Your task to perform on an android device: empty trash in google photos Image 0: 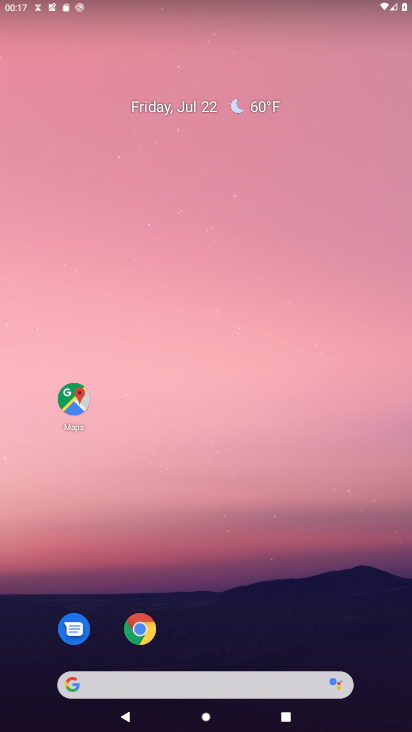
Step 0: drag from (220, 358) to (220, 201)
Your task to perform on an android device: empty trash in google photos Image 1: 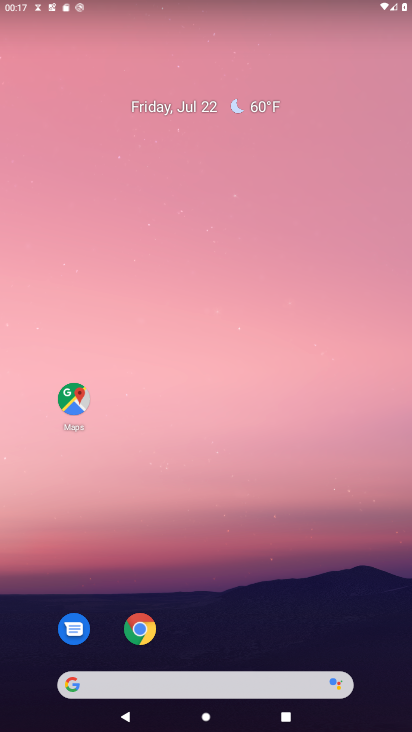
Step 1: drag from (281, 633) to (221, 167)
Your task to perform on an android device: empty trash in google photos Image 2: 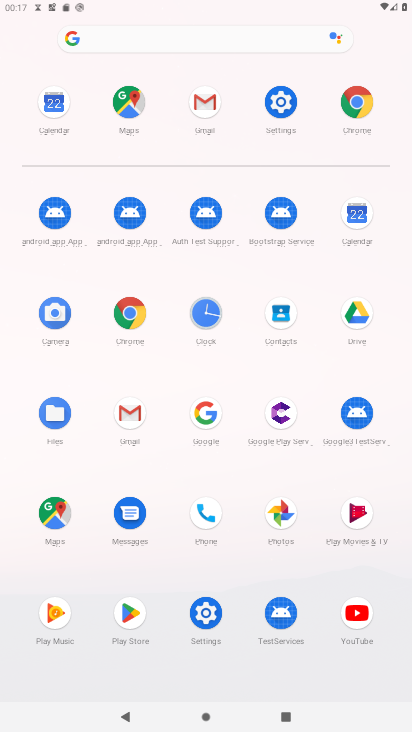
Step 2: click (286, 506)
Your task to perform on an android device: empty trash in google photos Image 3: 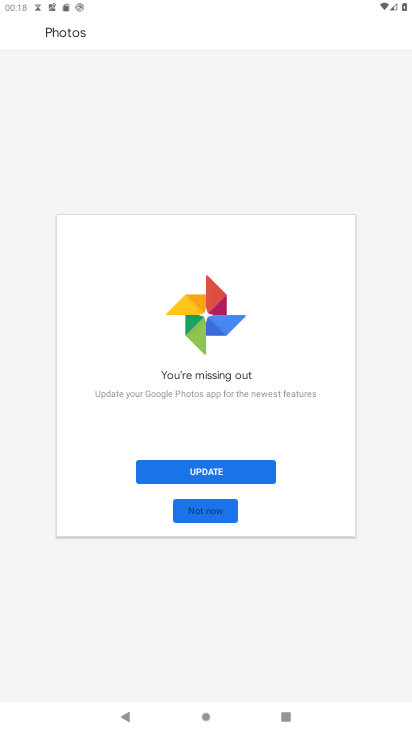
Step 3: click (210, 513)
Your task to perform on an android device: empty trash in google photos Image 4: 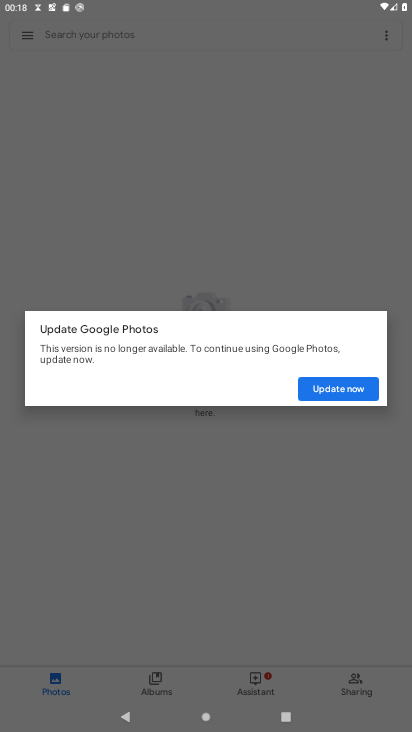
Step 4: click (323, 394)
Your task to perform on an android device: empty trash in google photos Image 5: 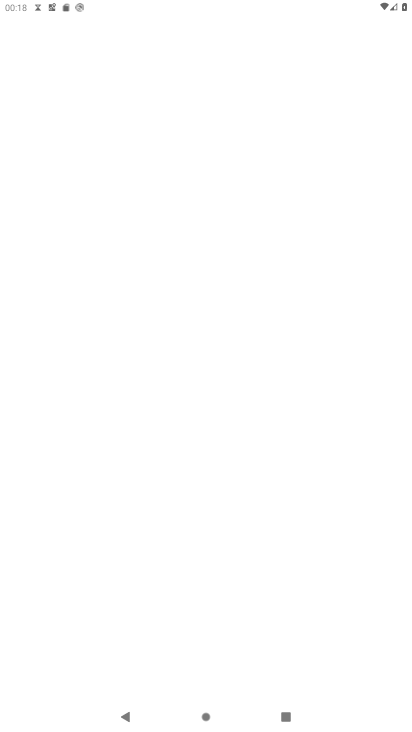
Step 5: press back button
Your task to perform on an android device: empty trash in google photos Image 6: 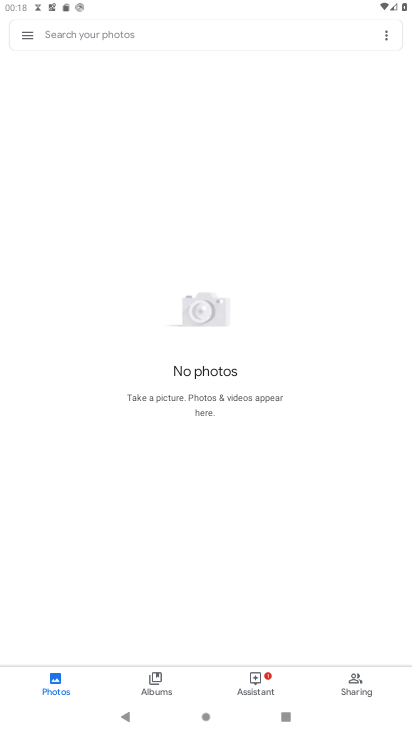
Step 6: click (33, 34)
Your task to perform on an android device: empty trash in google photos Image 7: 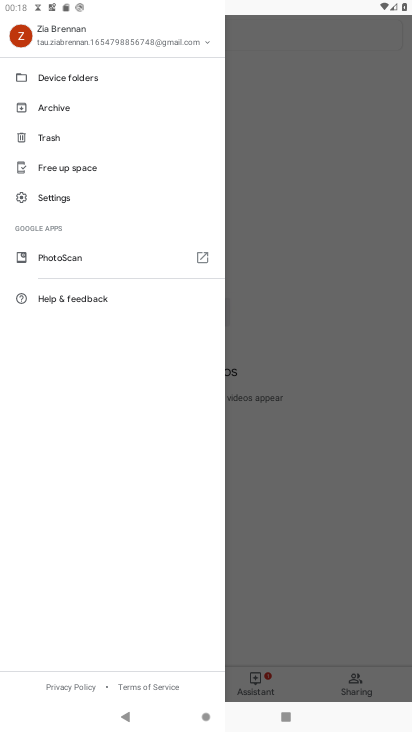
Step 7: click (66, 129)
Your task to perform on an android device: empty trash in google photos Image 8: 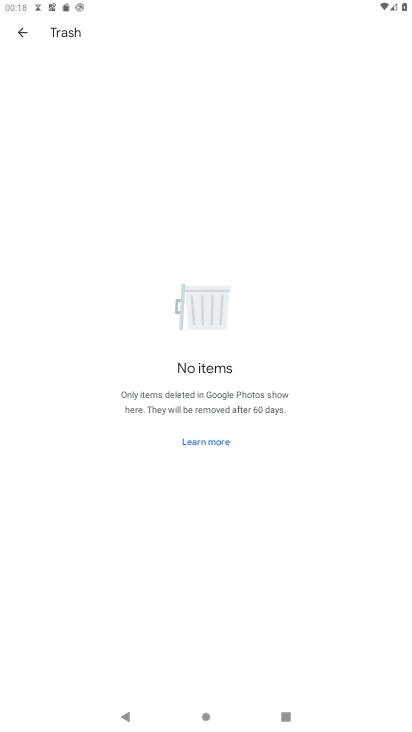
Step 8: task complete